Your task to perform on an android device: turn on showing notifications on the lock screen Image 0: 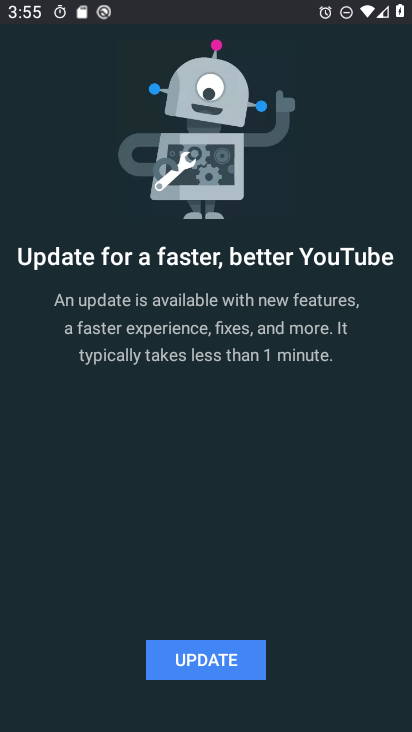
Step 0: press home button
Your task to perform on an android device: turn on showing notifications on the lock screen Image 1: 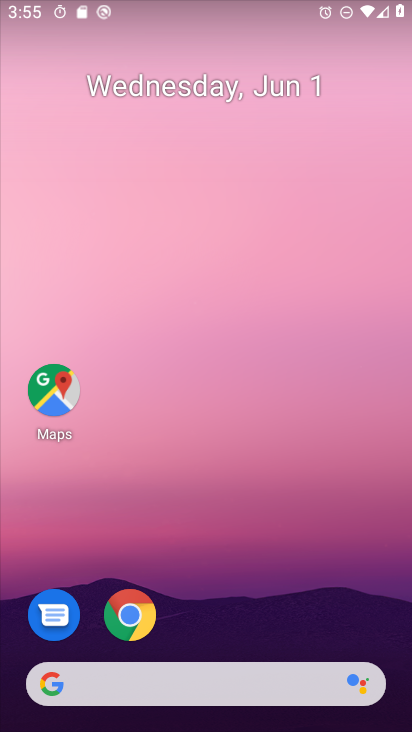
Step 1: drag from (282, 700) to (366, 13)
Your task to perform on an android device: turn on showing notifications on the lock screen Image 2: 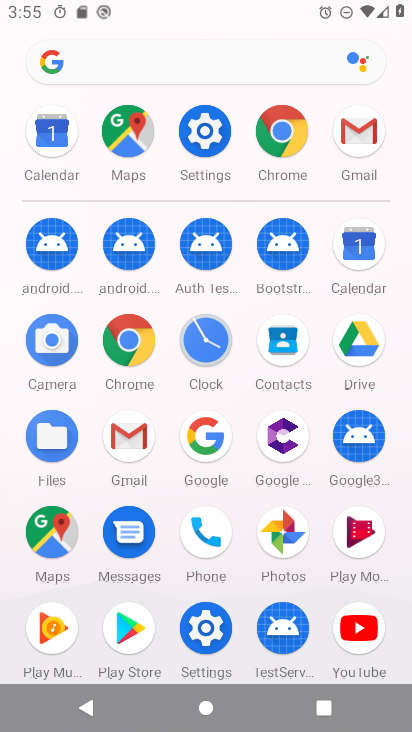
Step 2: click (207, 171)
Your task to perform on an android device: turn on showing notifications on the lock screen Image 3: 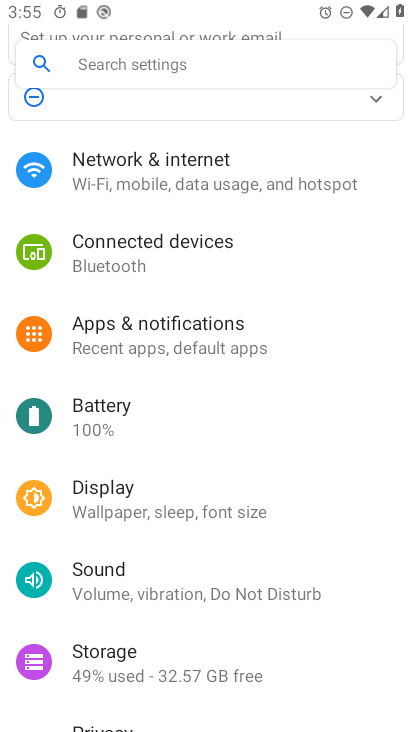
Step 3: click (118, 336)
Your task to perform on an android device: turn on showing notifications on the lock screen Image 4: 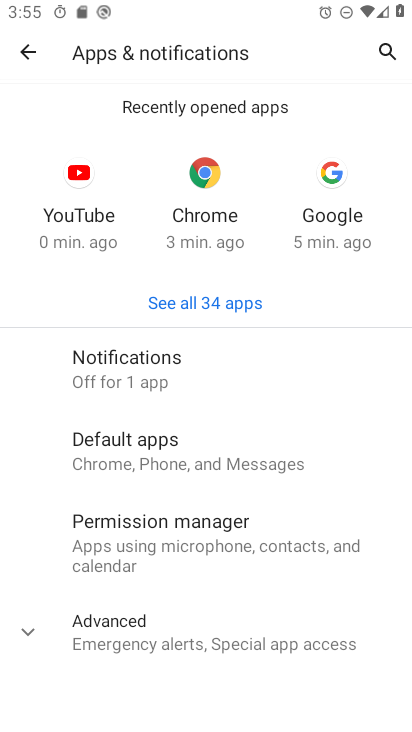
Step 4: click (176, 373)
Your task to perform on an android device: turn on showing notifications on the lock screen Image 5: 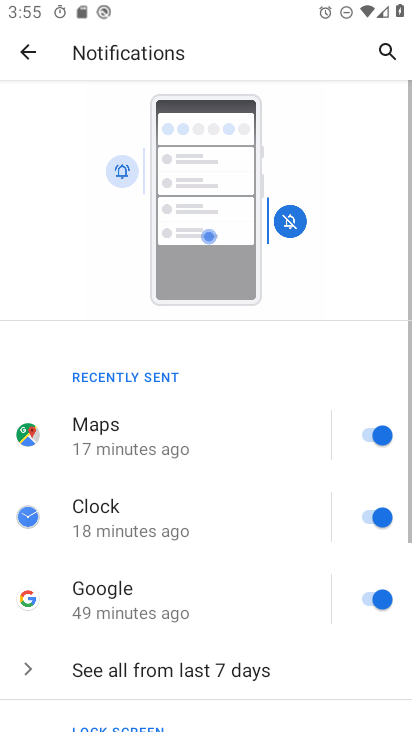
Step 5: drag from (240, 682) to (266, 168)
Your task to perform on an android device: turn on showing notifications on the lock screen Image 6: 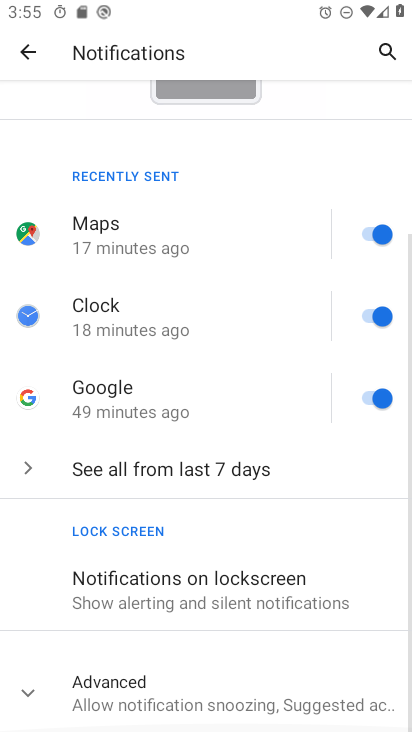
Step 6: click (273, 597)
Your task to perform on an android device: turn on showing notifications on the lock screen Image 7: 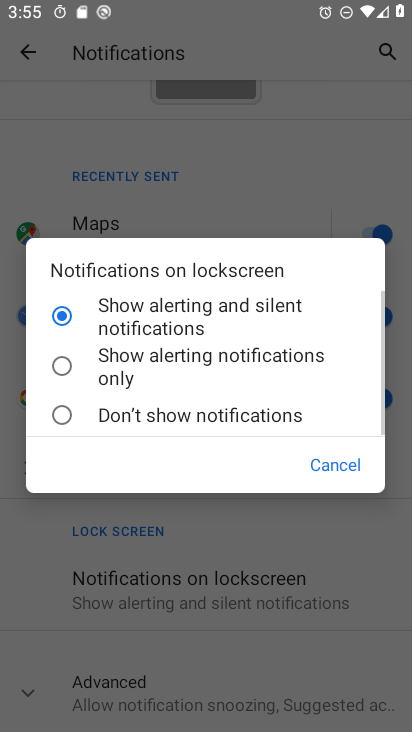
Step 7: task complete